Your task to perform on an android device: open app "Etsy: Buy & Sell Unique Items" Image 0: 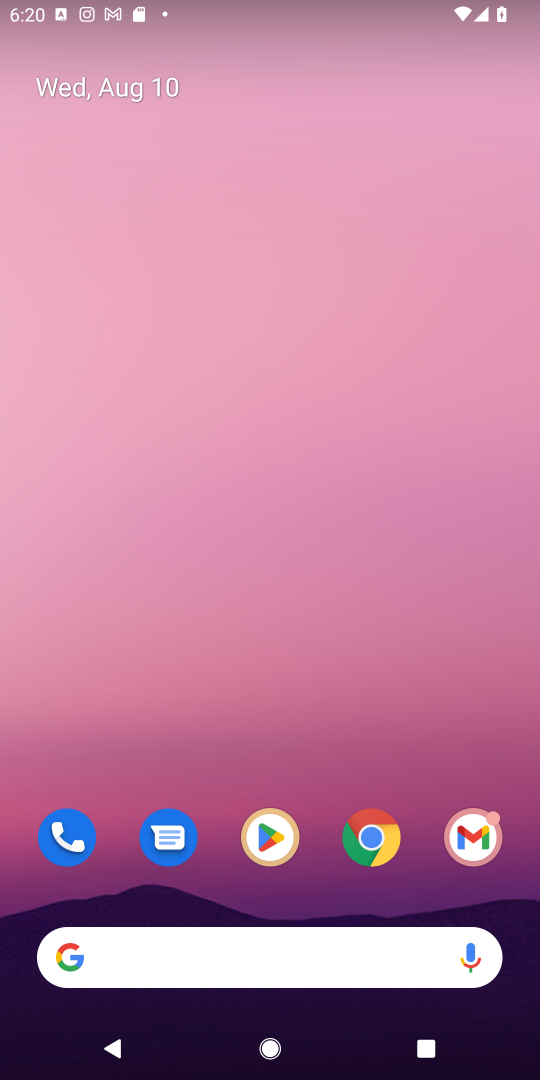
Step 0: click (259, 839)
Your task to perform on an android device: open app "Etsy: Buy & Sell Unique Items" Image 1: 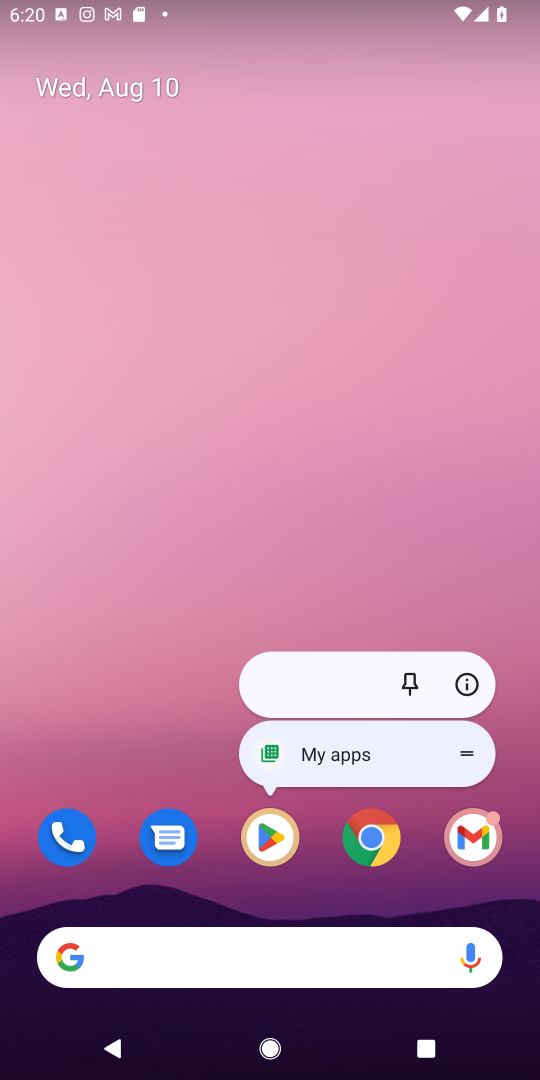
Step 1: click (274, 832)
Your task to perform on an android device: open app "Etsy: Buy & Sell Unique Items" Image 2: 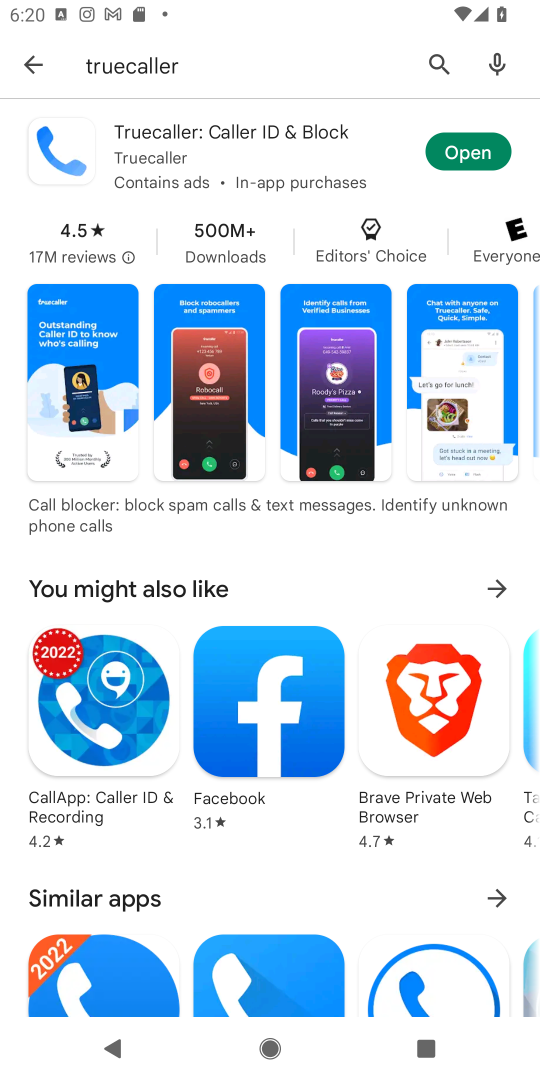
Step 2: click (434, 59)
Your task to perform on an android device: open app "Etsy: Buy & Sell Unique Items" Image 3: 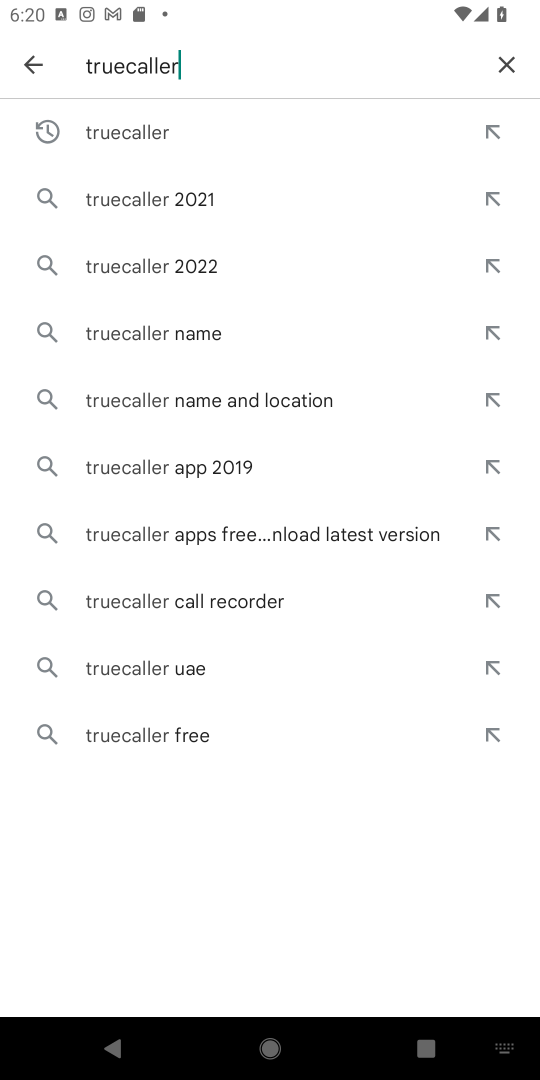
Step 3: click (507, 62)
Your task to perform on an android device: open app "Etsy: Buy & Sell Unique Items" Image 4: 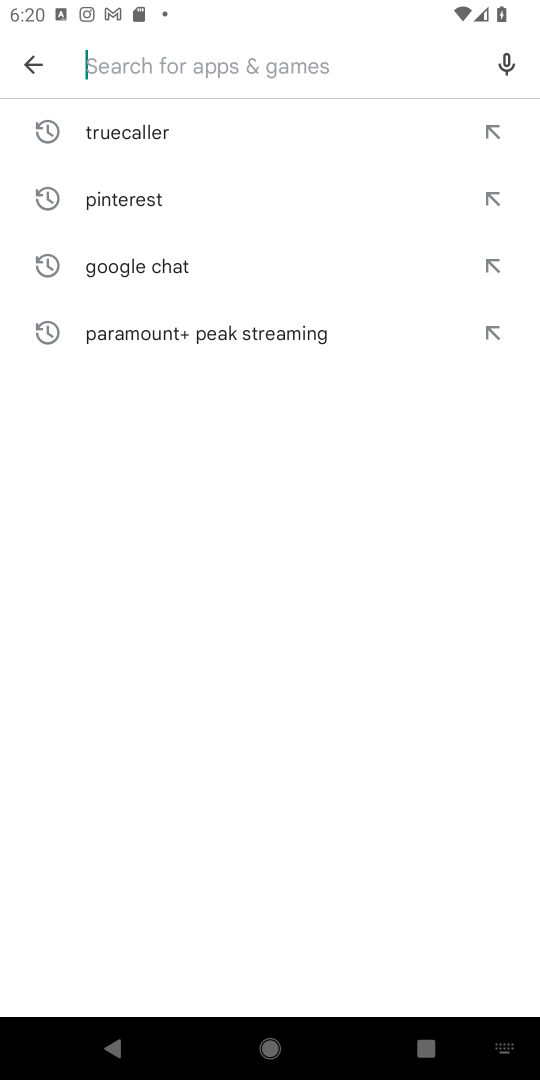
Step 4: type "Etsy: Buy & Sell Unique Items"
Your task to perform on an android device: open app "Etsy: Buy & Sell Unique Items" Image 5: 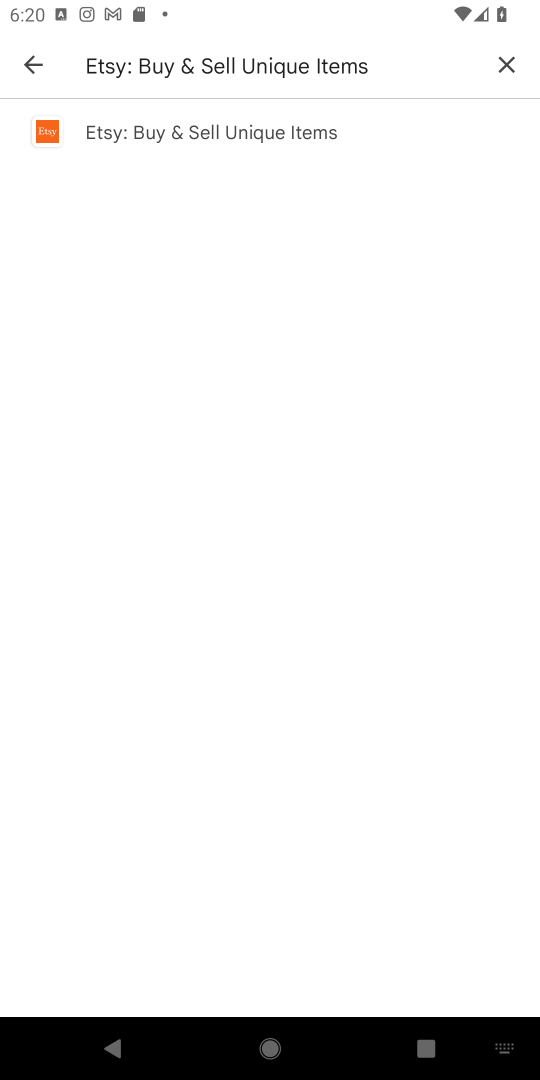
Step 5: click (191, 130)
Your task to perform on an android device: open app "Etsy: Buy & Sell Unique Items" Image 6: 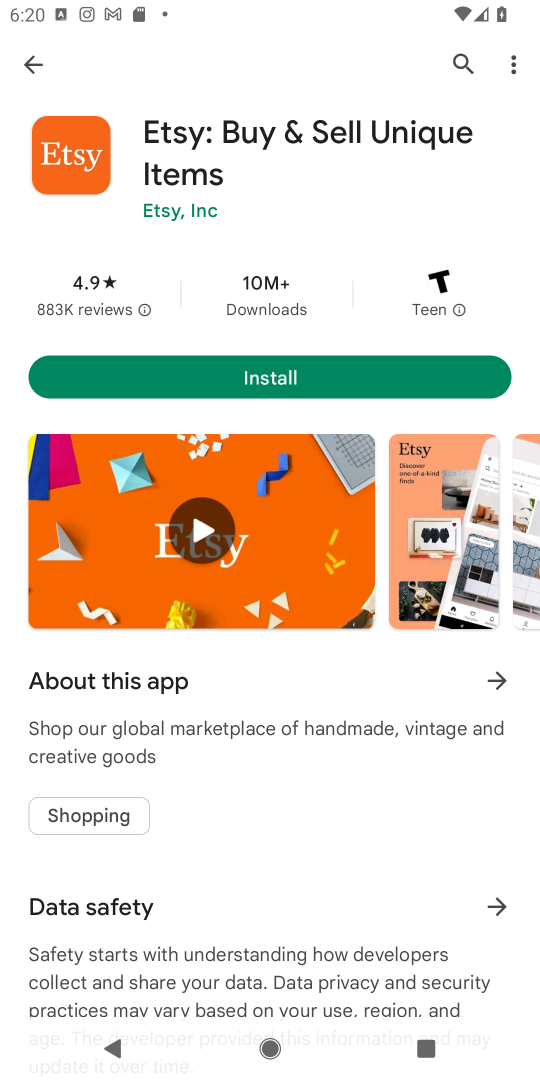
Step 6: task complete